Your task to perform on an android device: toggle javascript in the chrome app Image 0: 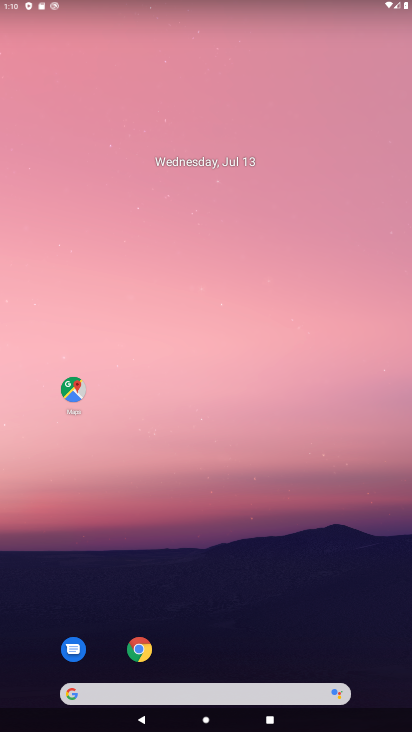
Step 0: click (134, 651)
Your task to perform on an android device: toggle javascript in the chrome app Image 1: 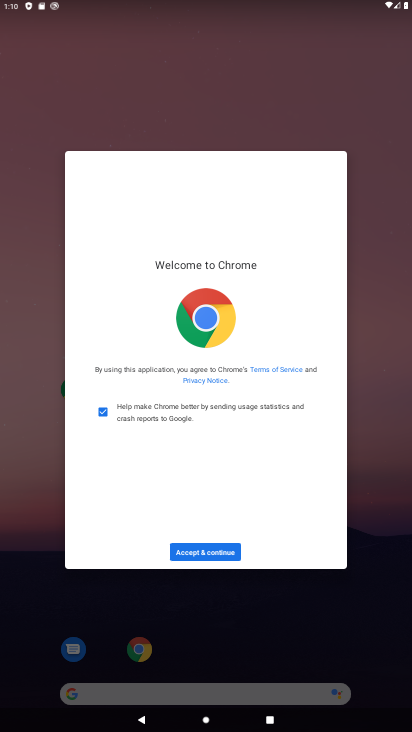
Step 1: click (200, 550)
Your task to perform on an android device: toggle javascript in the chrome app Image 2: 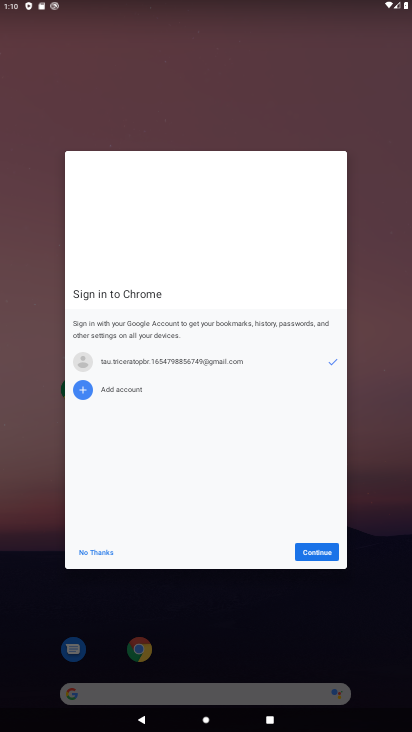
Step 2: click (298, 549)
Your task to perform on an android device: toggle javascript in the chrome app Image 3: 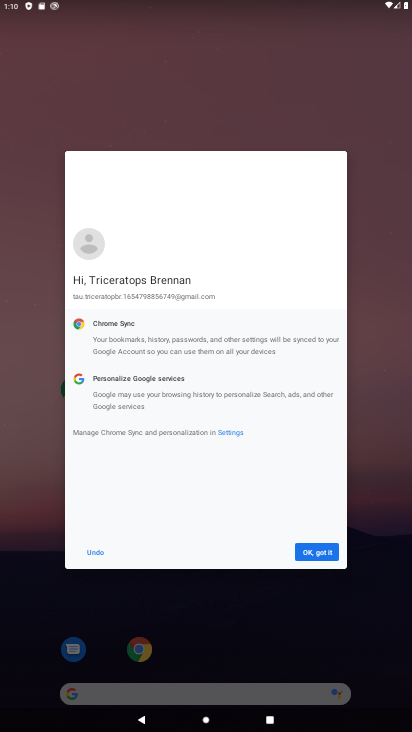
Step 3: click (312, 549)
Your task to perform on an android device: toggle javascript in the chrome app Image 4: 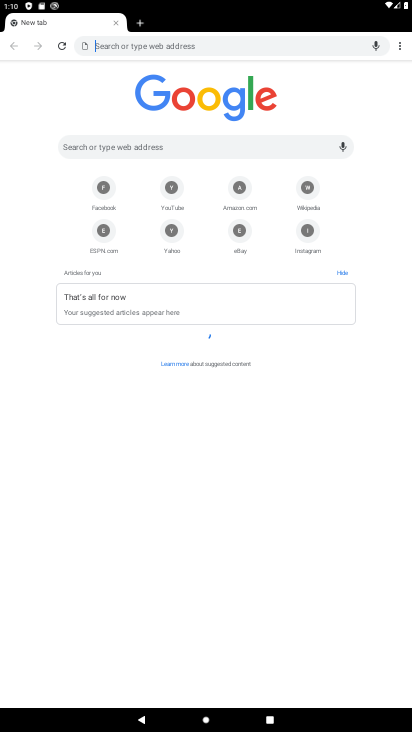
Step 4: drag from (402, 40) to (347, 201)
Your task to perform on an android device: toggle javascript in the chrome app Image 5: 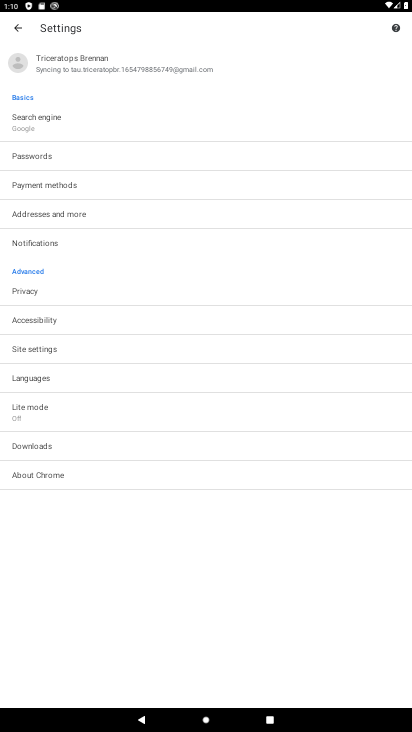
Step 5: click (59, 359)
Your task to perform on an android device: toggle javascript in the chrome app Image 6: 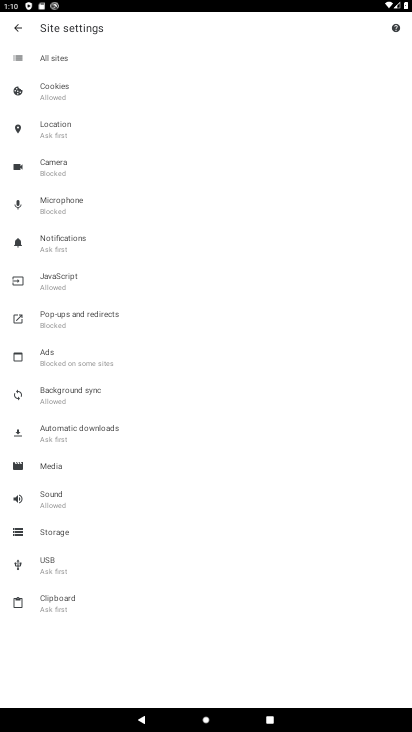
Step 6: click (99, 276)
Your task to perform on an android device: toggle javascript in the chrome app Image 7: 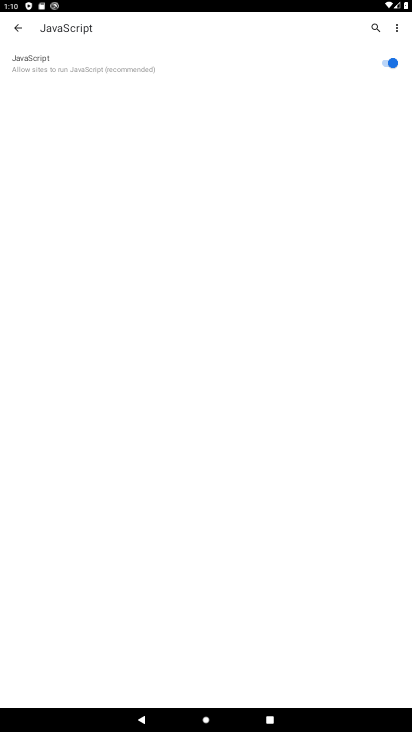
Step 7: click (384, 57)
Your task to perform on an android device: toggle javascript in the chrome app Image 8: 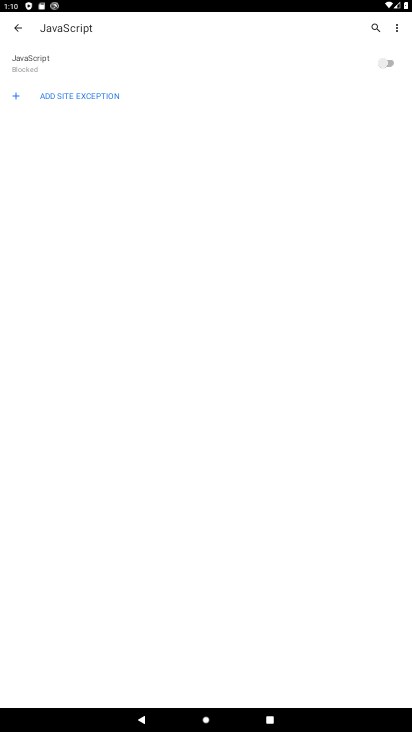
Step 8: task complete